Your task to perform on an android device: Show me recent news Image 0: 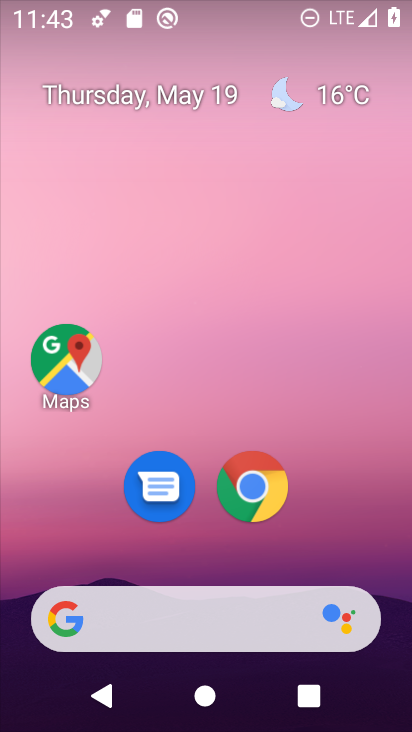
Step 0: click (232, 613)
Your task to perform on an android device: Show me recent news Image 1: 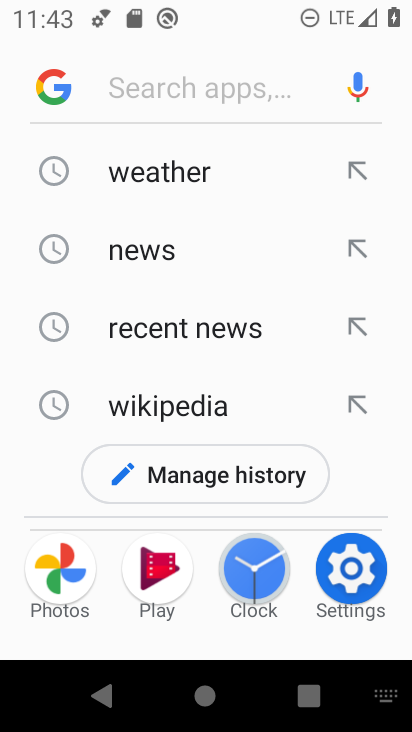
Step 1: click (190, 261)
Your task to perform on an android device: Show me recent news Image 2: 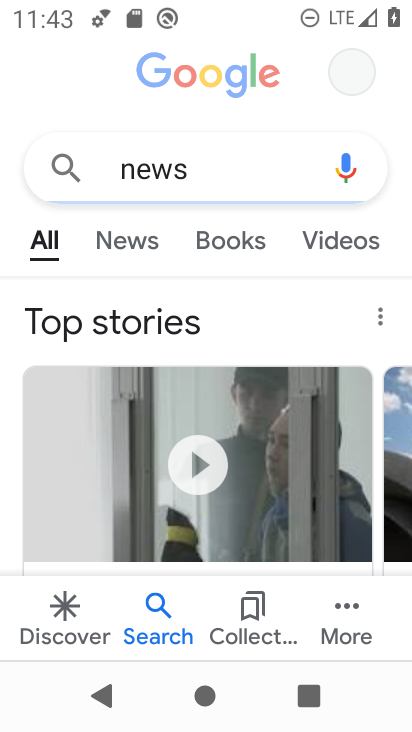
Step 2: task complete